Your task to perform on an android device: open the mobile data screen to see how much data has been used Image 0: 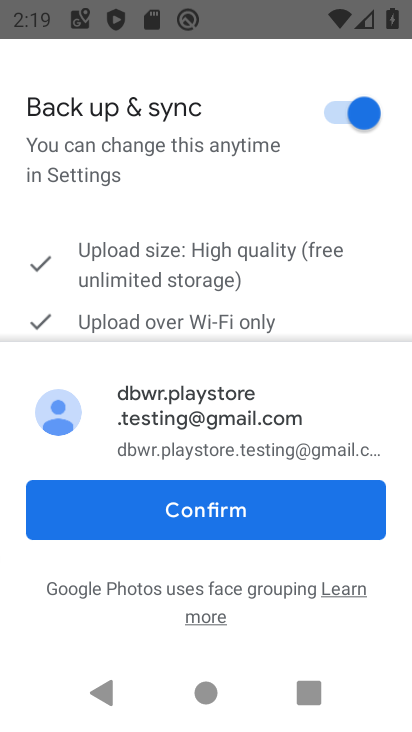
Step 0: press home button
Your task to perform on an android device: open the mobile data screen to see how much data has been used Image 1: 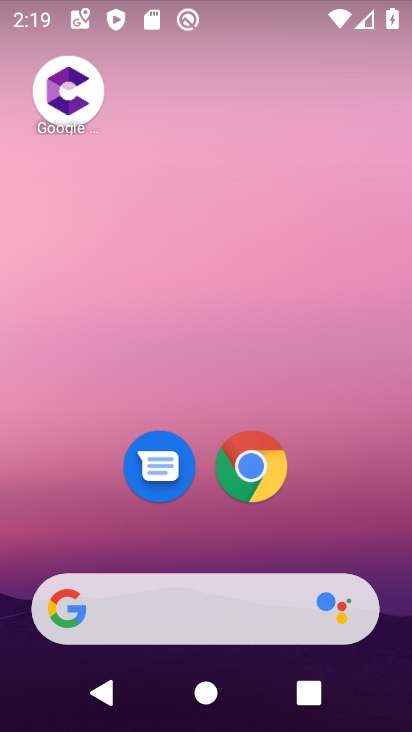
Step 1: drag from (322, 510) to (291, 132)
Your task to perform on an android device: open the mobile data screen to see how much data has been used Image 2: 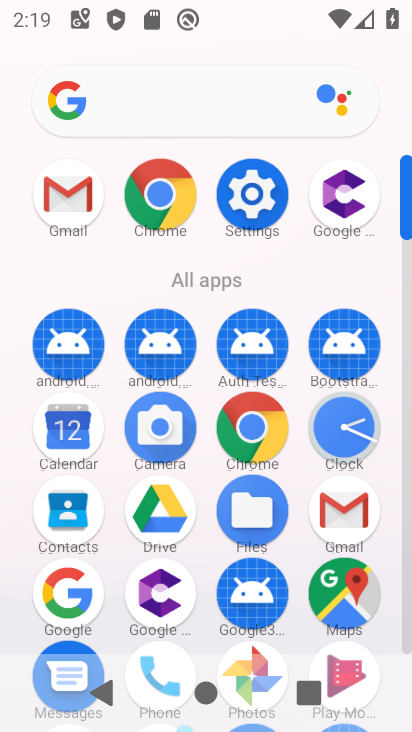
Step 2: click (251, 191)
Your task to perform on an android device: open the mobile data screen to see how much data has been used Image 3: 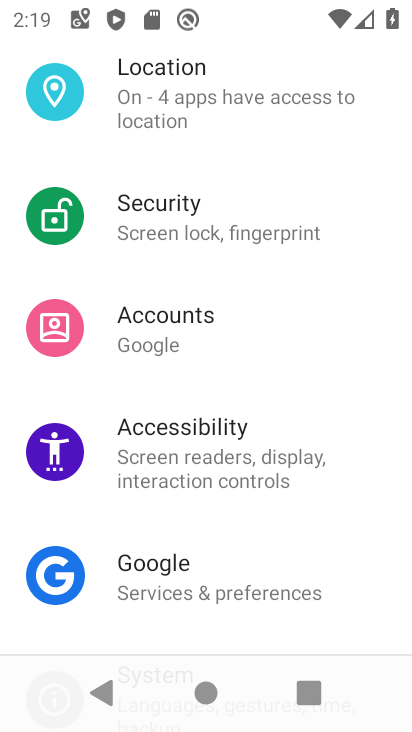
Step 3: drag from (186, 140) to (170, 520)
Your task to perform on an android device: open the mobile data screen to see how much data has been used Image 4: 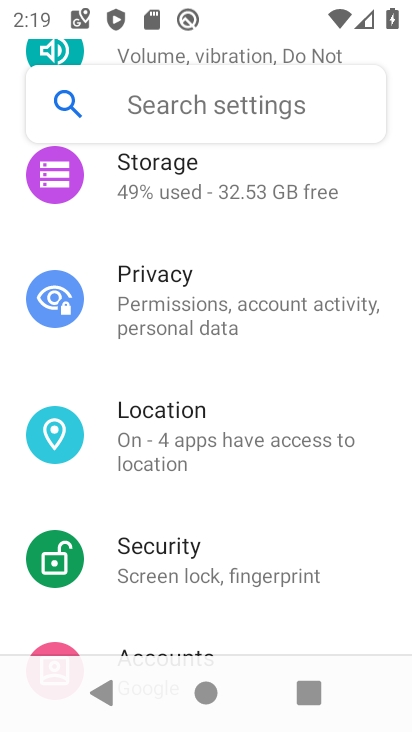
Step 4: drag from (154, 210) to (156, 536)
Your task to perform on an android device: open the mobile data screen to see how much data has been used Image 5: 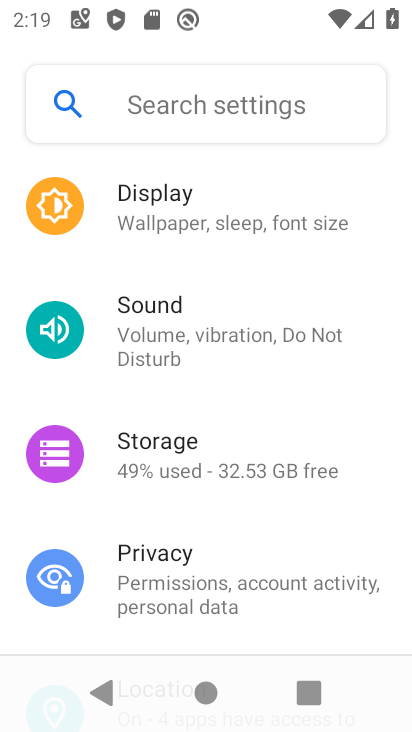
Step 5: drag from (182, 235) to (156, 532)
Your task to perform on an android device: open the mobile data screen to see how much data has been used Image 6: 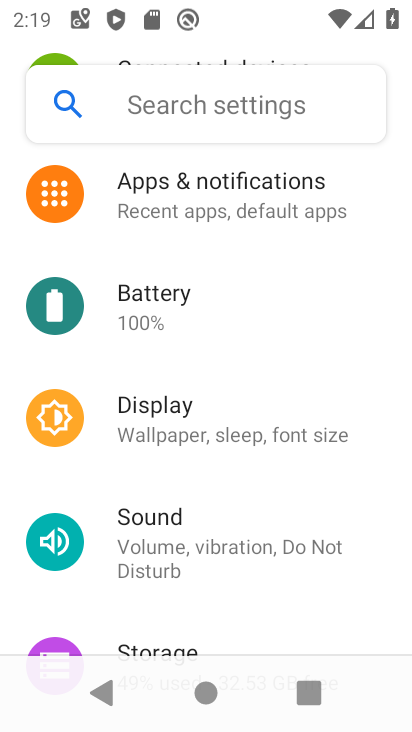
Step 6: drag from (171, 197) to (167, 546)
Your task to perform on an android device: open the mobile data screen to see how much data has been used Image 7: 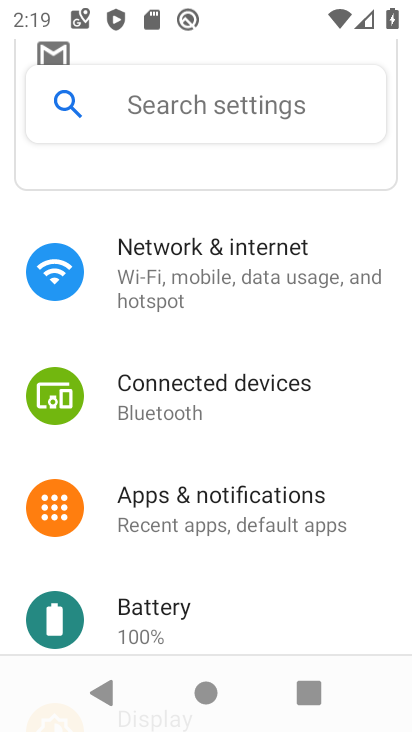
Step 7: click (136, 255)
Your task to perform on an android device: open the mobile data screen to see how much data has been used Image 8: 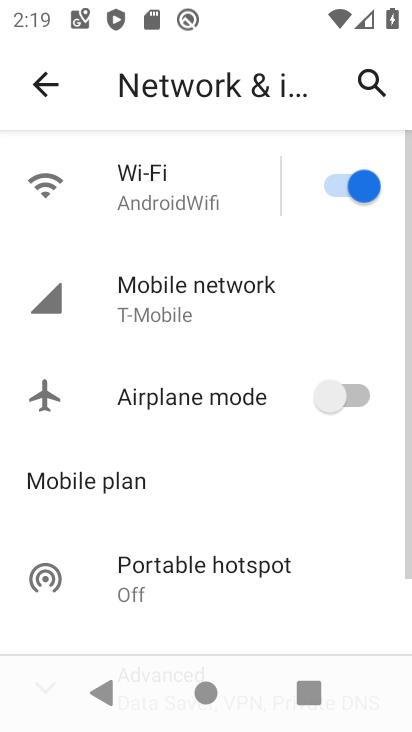
Step 8: click (155, 301)
Your task to perform on an android device: open the mobile data screen to see how much data has been used Image 9: 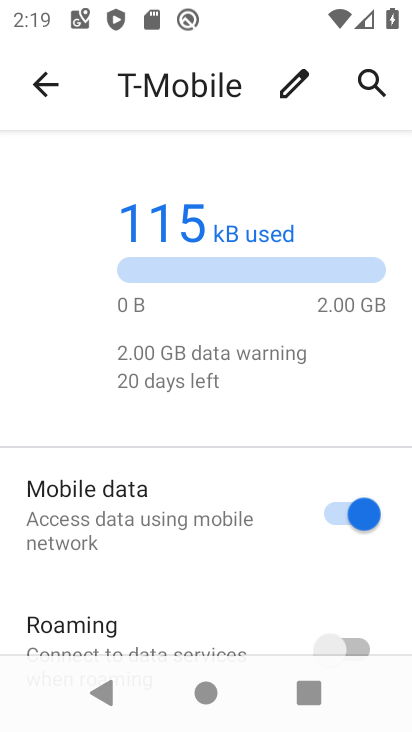
Step 9: task complete